Your task to perform on an android device: Search for nike dri-fit shirts on Nike Image 0: 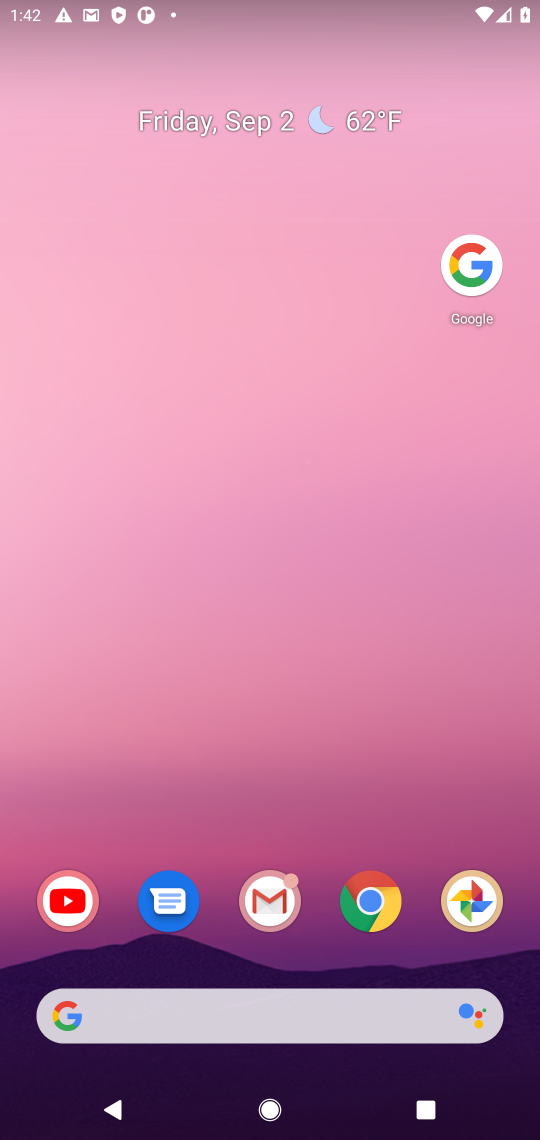
Step 0: click (369, 896)
Your task to perform on an android device: Search for nike dri-fit shirts on Nike Image 1: 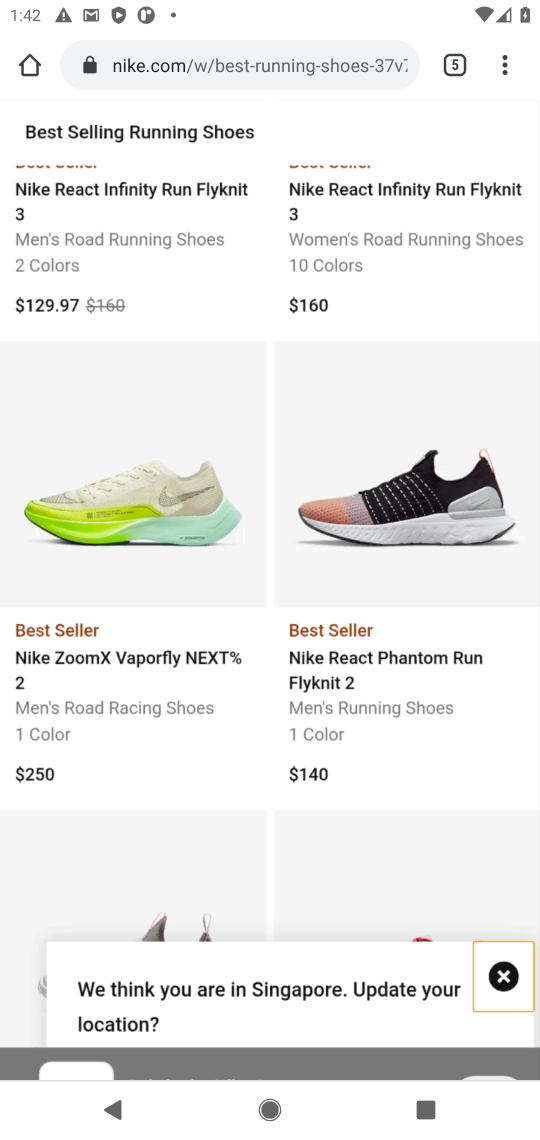
Step 1: press home button
Your task to perform on an android device: Search for nike dri-fit shirts on Nike Image 2: 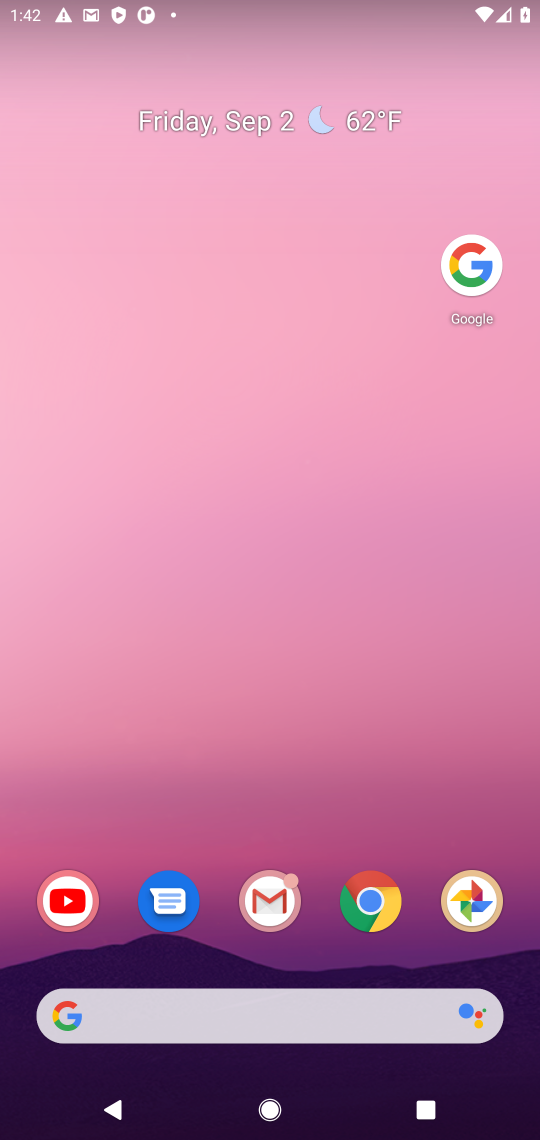
Step 2: click (479, 256)
Your task to perform on an android device: Search for nike dri-fit shirts on Nike Image 3: 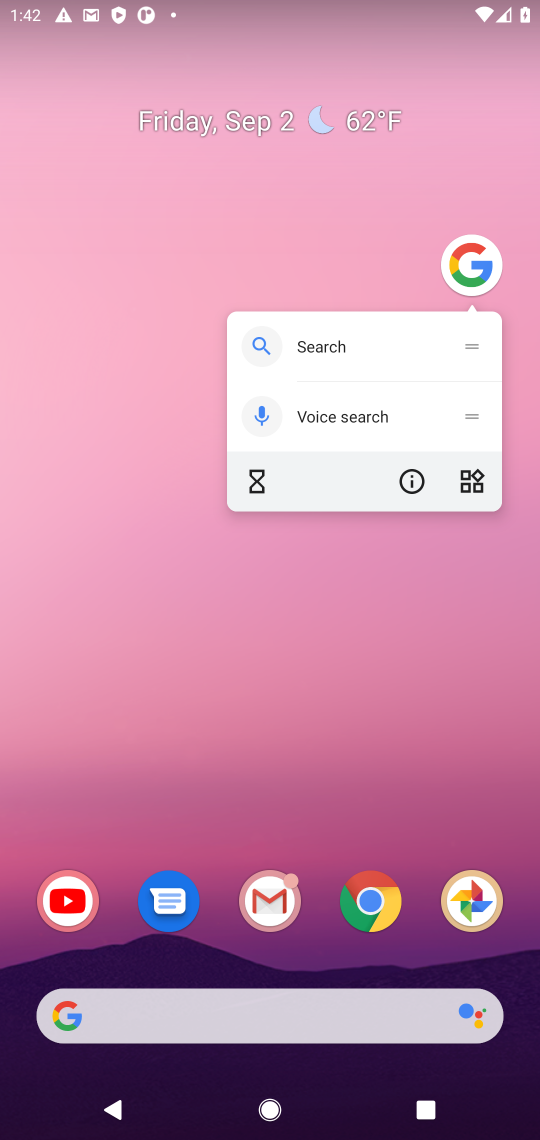
Step 3: click (479, 244)
Your task to perform on an android device: Search for nike dri-fit shirts on Nike Image 4: 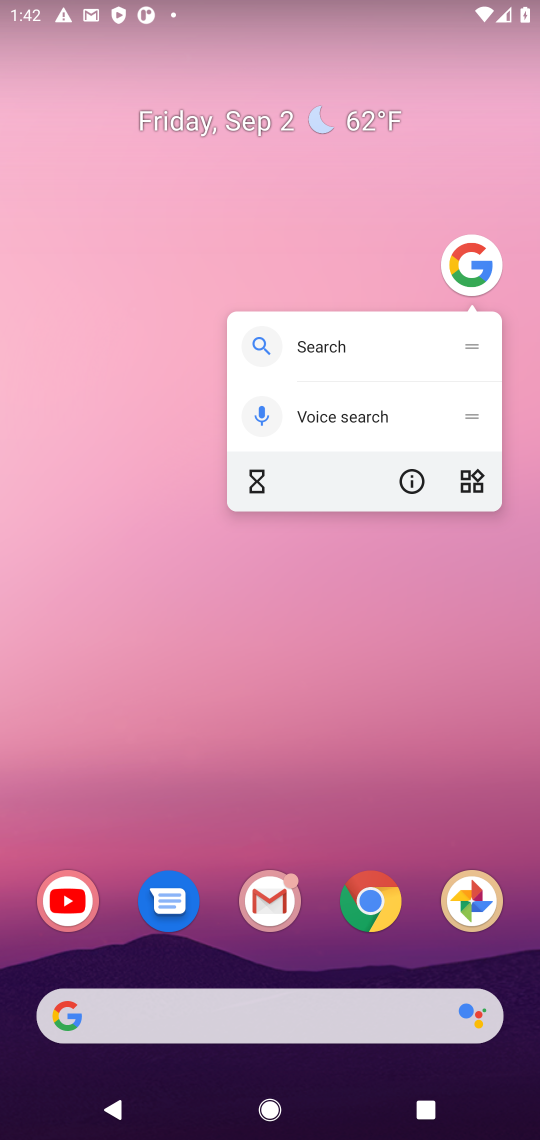
Step 4: click (467, 266)
Your task to perform on an android device: Search for nike dri-fit shirts on Nike Image 5: 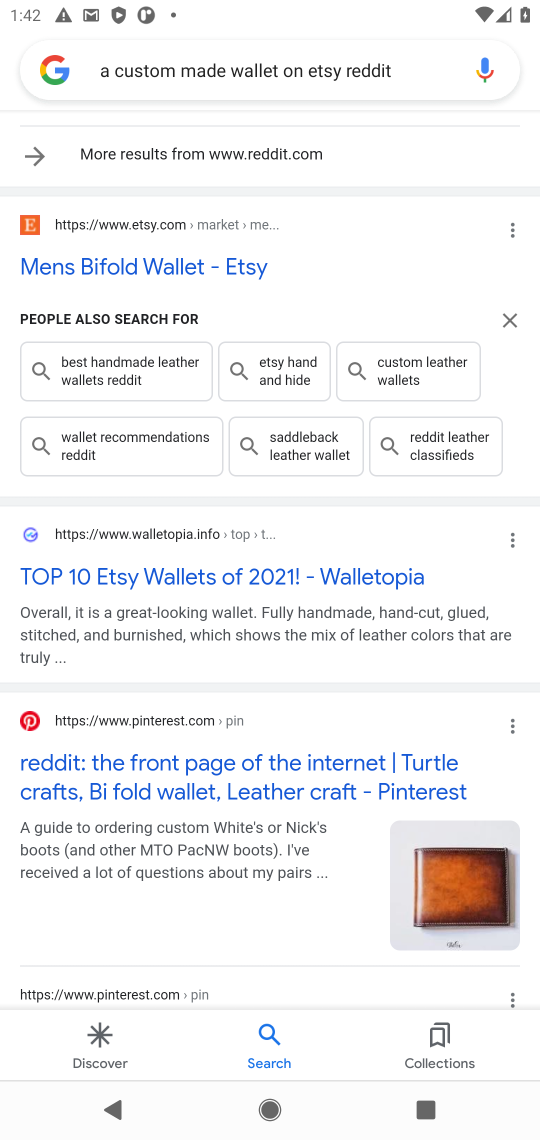
Step 5: drag from (285, 338) to (311, 873)
Your task to perform on an android device: Search for nike dri-fit shirts on Nike Image 6: 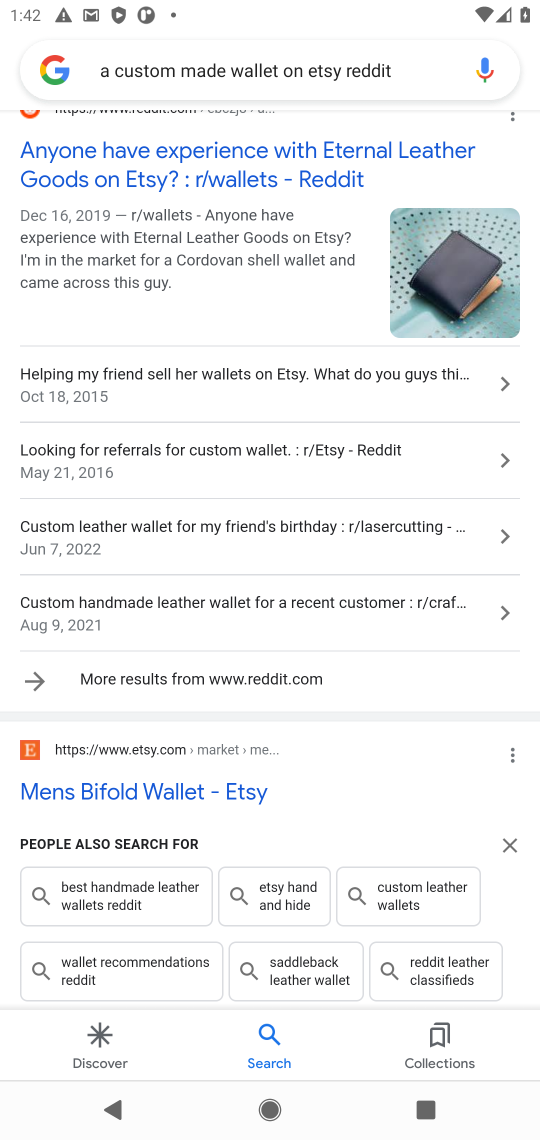
Step 6: click (409, 54)
Your task to perform on an android device: Search for nike dri-fit shirts on Nike Image 7: 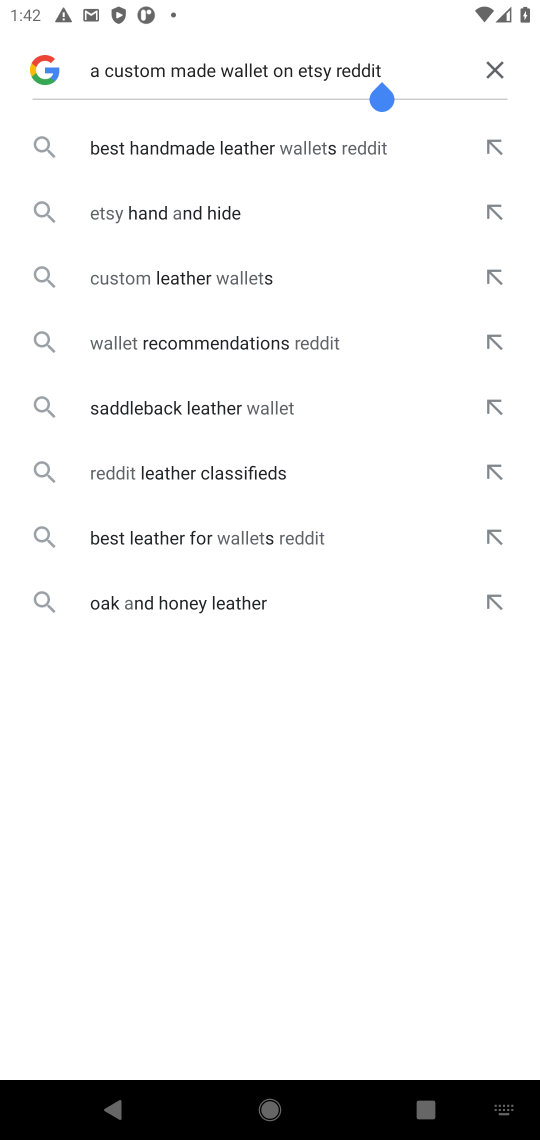
Step 7: click (486, 64)
Your task to perform on an android device: Search for nike dri-fit shirts on Nike Image 8: 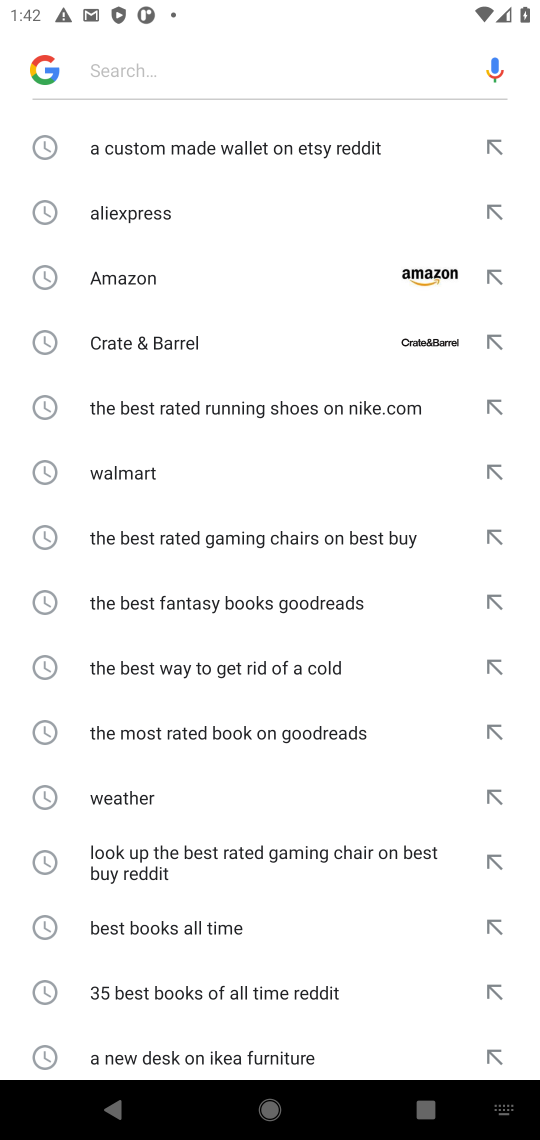
Step 8: click (253, 60)
Your task to perform on an android device: Search for nike dri-fit shirts on Nike Image 9: 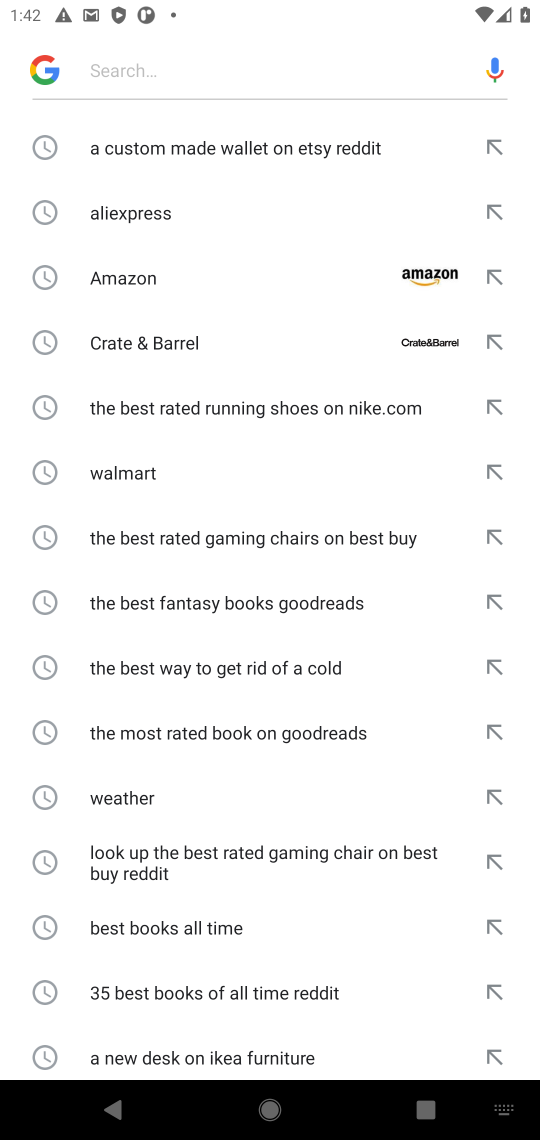
Step 9: type "nike dri-fit shirts on Nike "
Your task to perform on an android device: Search for nike dri-fit shirts on Nike Image 10: 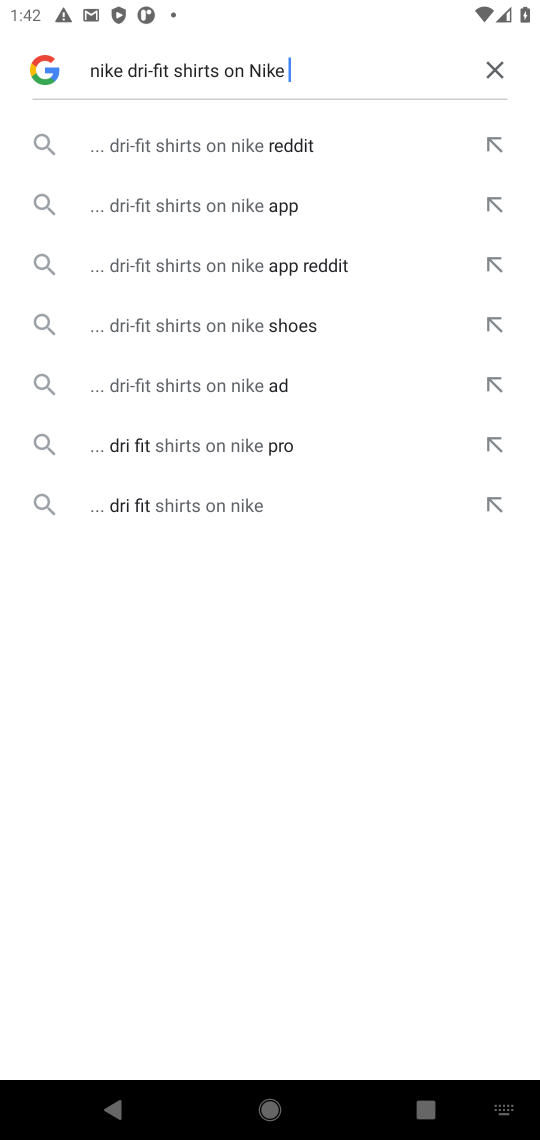
Step 10: click (218, 226)
Your task to perform on an android device: Search for nike dri-fit shirts on Nike Image 11: 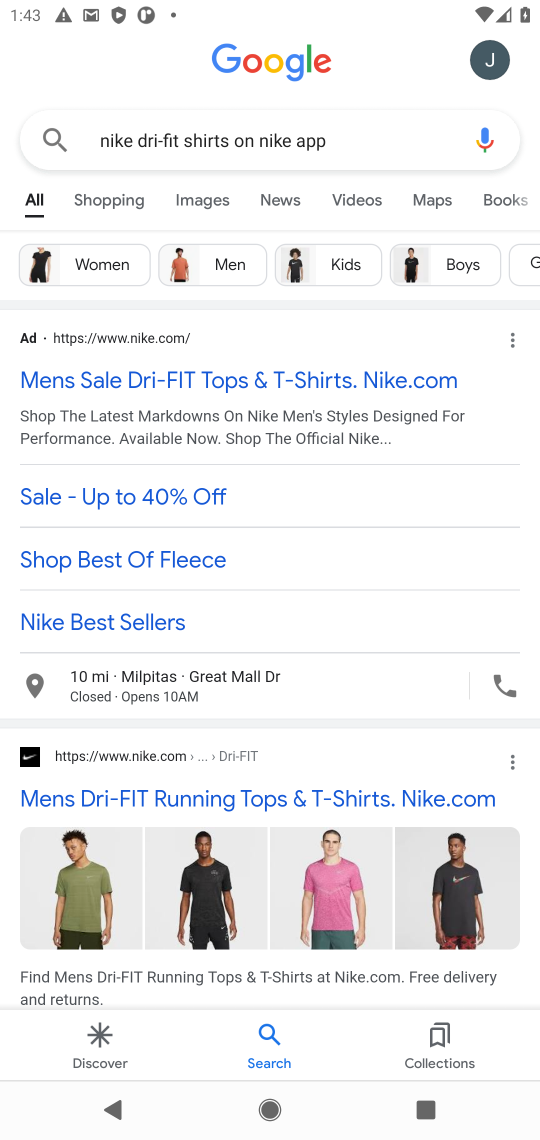
Step 11: task complete